Your task to perform on an android device: turn off location Image 0: 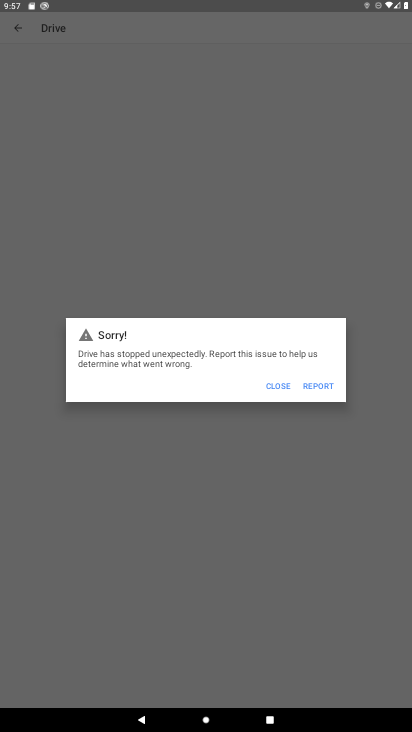
Step 0: drag from (321, 631) to (299, 214)
Your task to perform on an android device: turn off location Image 1: 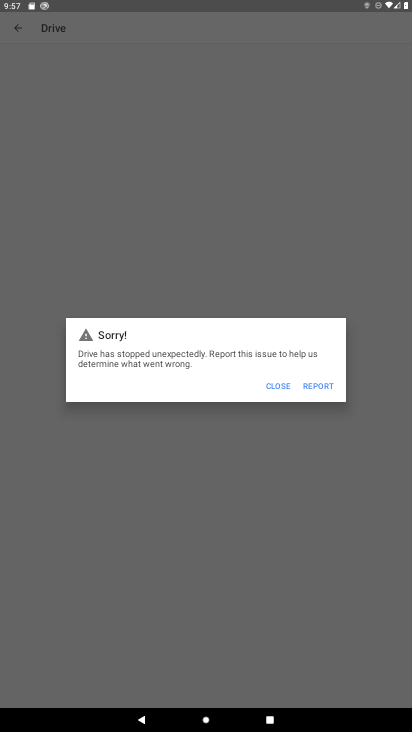
Step 1: press home button
Your task to perform on an android device: turn off location Image 2: 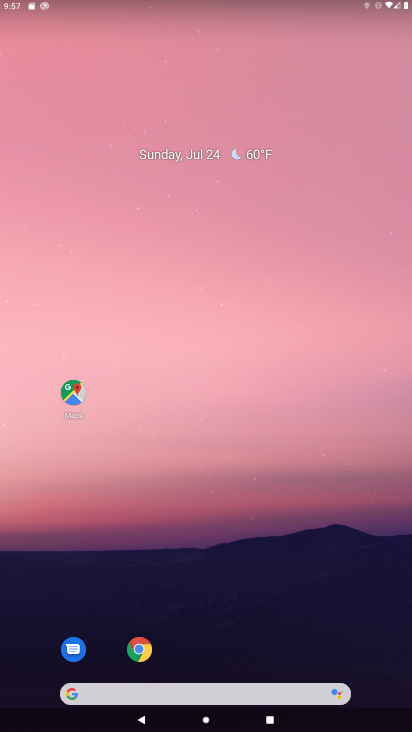
Step 2: drag from (300, 557) to (302, 27)
Your task to perform on an android device: turn off location Image 3: 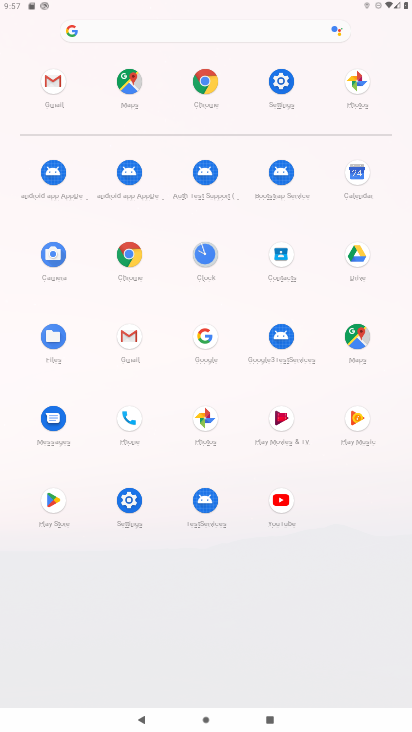
Step 3: click (271, 73)
Your task to perform on an android device: turn off location Image 4: 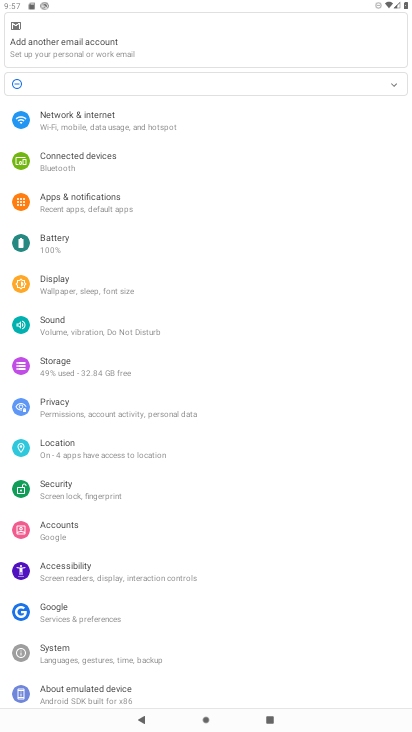
Step 4: click (92, 467)
Your task to perform on an android device: turn off location Image 5: 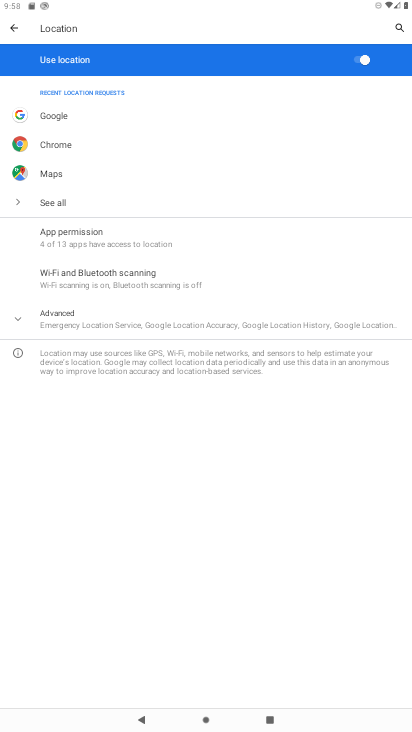
Step 5: click (353, 62)
Your task to perform on an android device: turn off location Image 6: 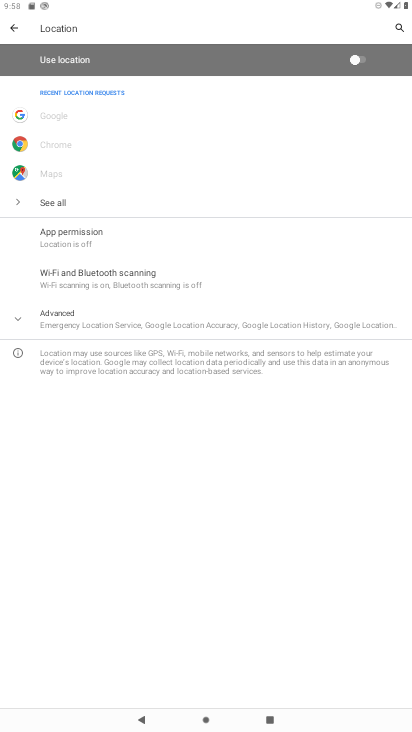
Step 6: task complete